Your task to perform on an android device: What's the weather? Image 0: 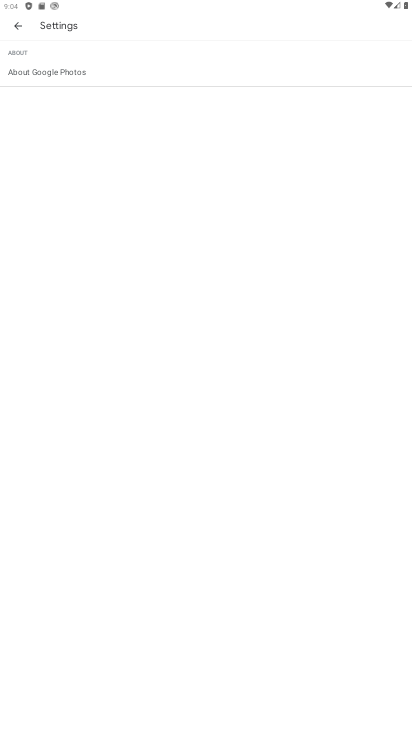
Step 0: press home button
Your task to perform on an android device: What's the weather? Image 1: 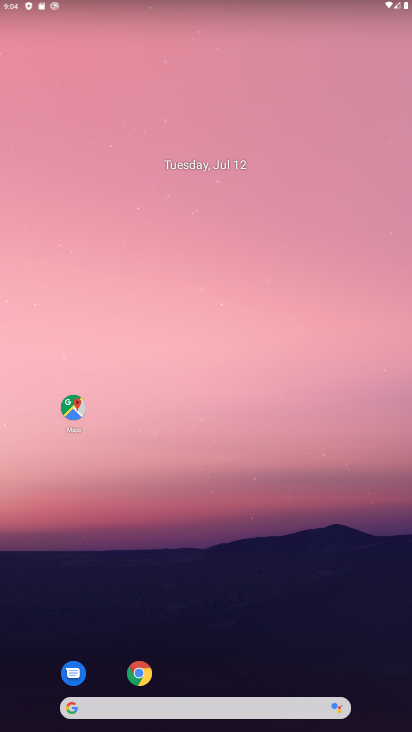
Step 1: click (165, 50)
Your task to perform on an android device: What's the weather? Image 2: 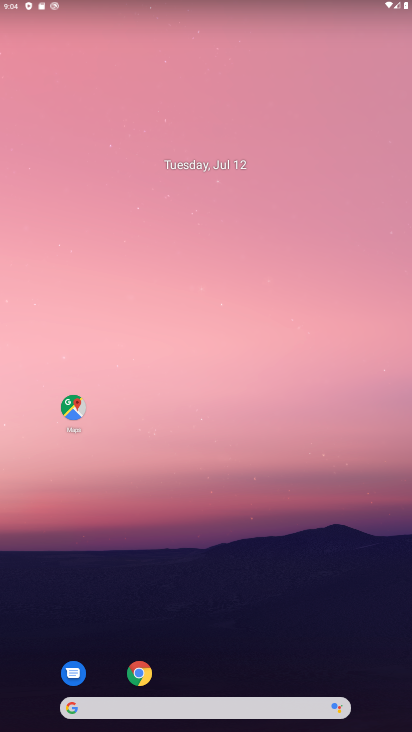
Step 2: click (155, 25)
Your task to perform on an android device: What's the weather? Image 3: 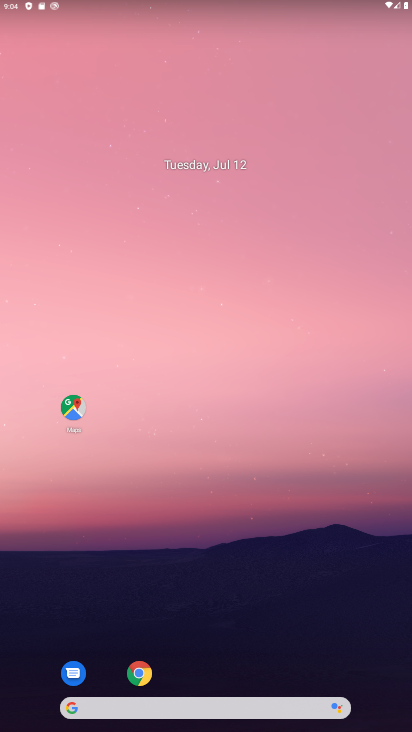
Step 3: drag from (171, 133) to (183, 66)
Your task to perform on an android device: What's the weather? Image 4: 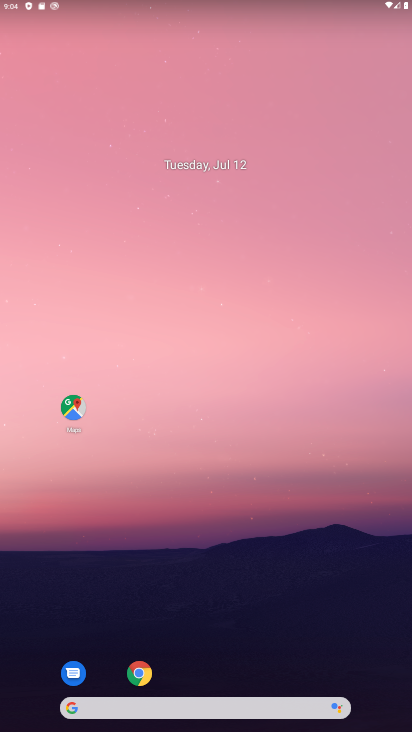
Step 4: drag from (187, 658) to (150, 216)
Your task to perform on an android device: What's the weather? Image 5: 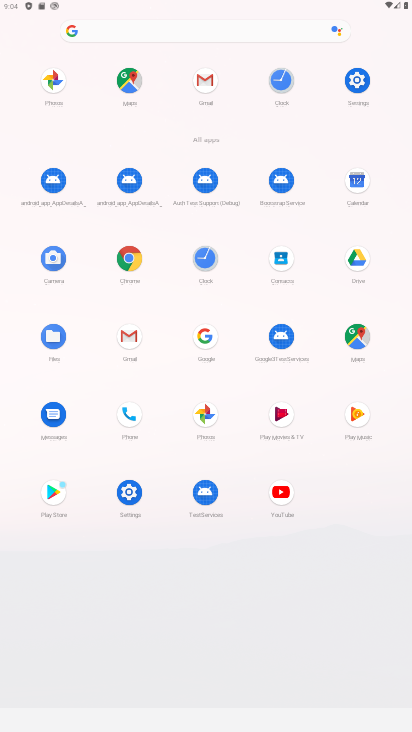
Step 5: click (196, 353)
Your task to perform on an android device: What's the weather? Image 6: 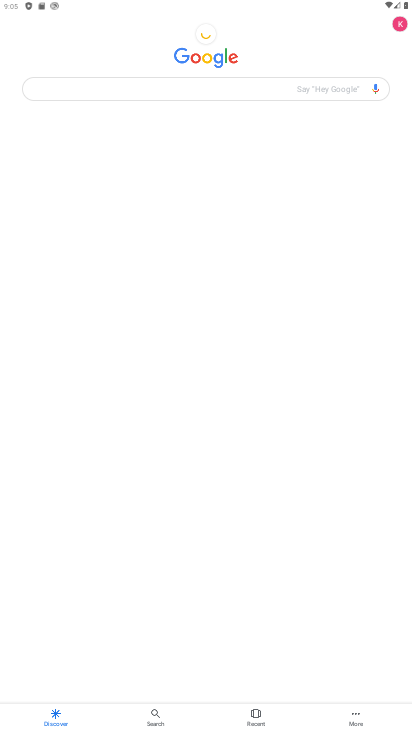
Step 6: click (159, 87)
Your task to perform on an android device: What's the weather? Image 7: 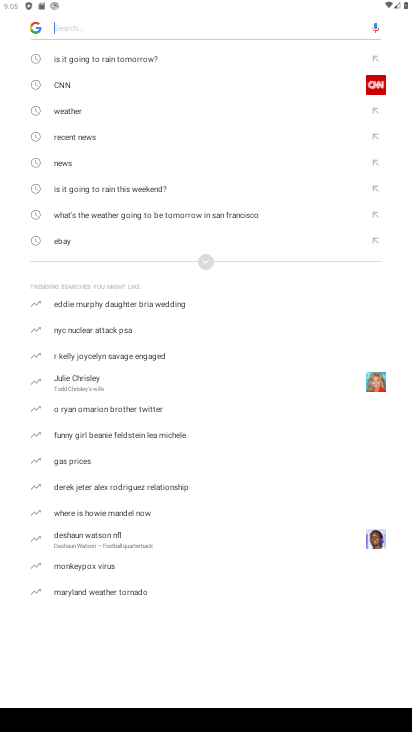
Step 7: click (57, 118)
Your task to perform on an android device: What's the weather? Image 8: 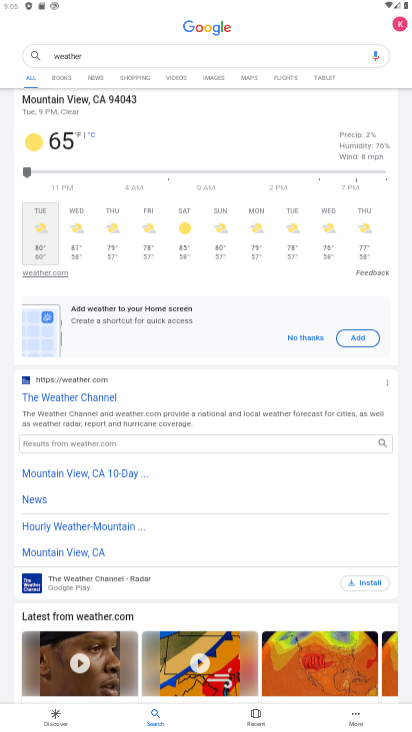
Step 8: task complete